Your task to perform on an android device: change timer sound Image 0: 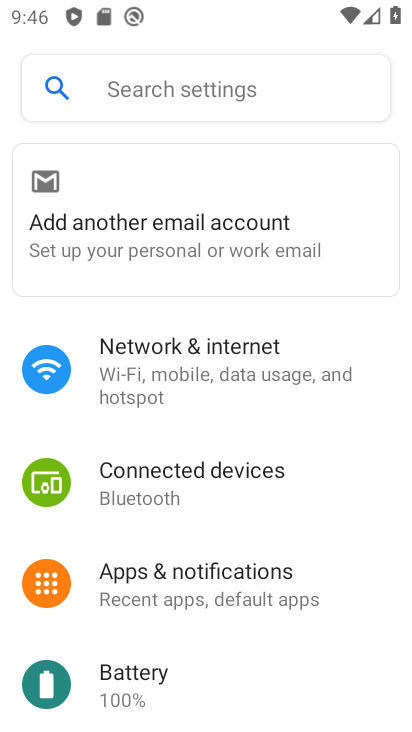
Step 0: press home button
Your task to perform on an android device: change timer sound Image 1: 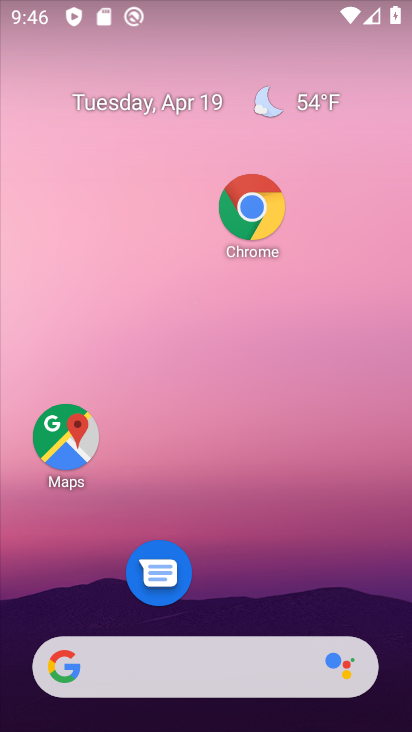
Step 1: drag from (223, 505) to (248, 228)
Your task to perform on an android device: change timer sound Image 2: 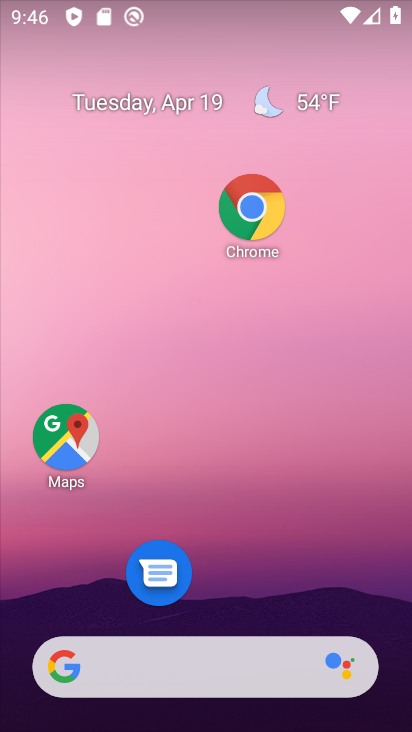
Step 2: drag from (221, 578) to (168, 99)
Your task to perform on an android device: change timer sound Image 3: 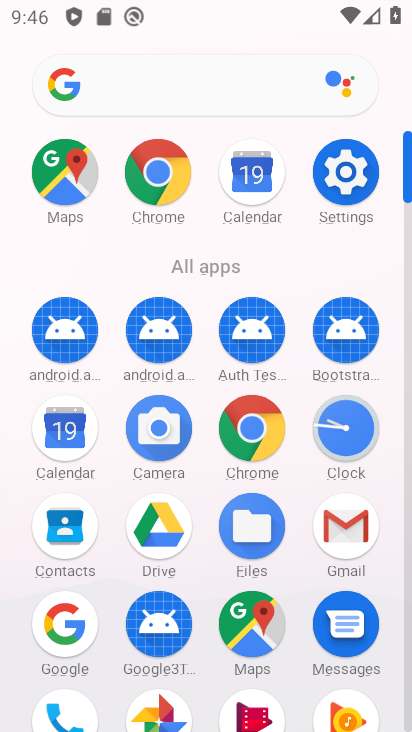
Step 3: click (334, 420)
Your task to perform on an android device: change timer sound Image 4: 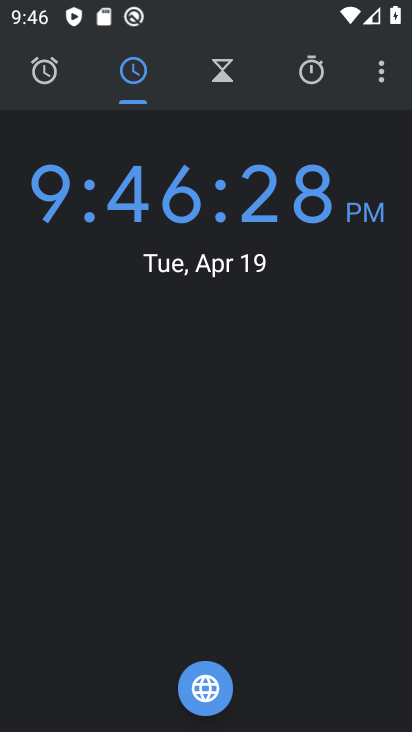
Step 4: click (379, 75)
Your task to perform on an android device: change timer sound Image 5: 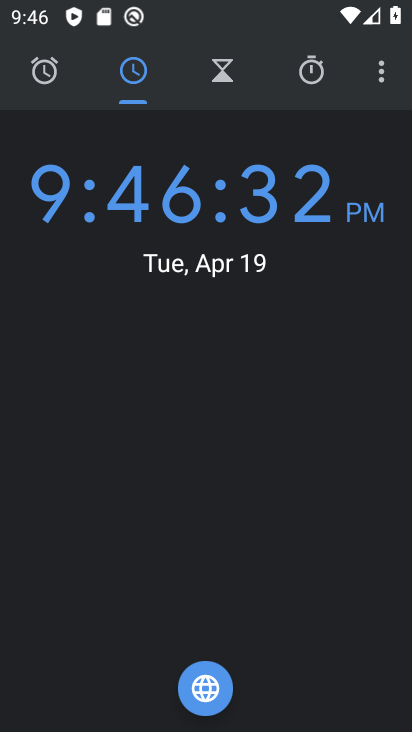
Step 5: click (384, 68)
Your task to perform on an android device: change timer sound Image 6: 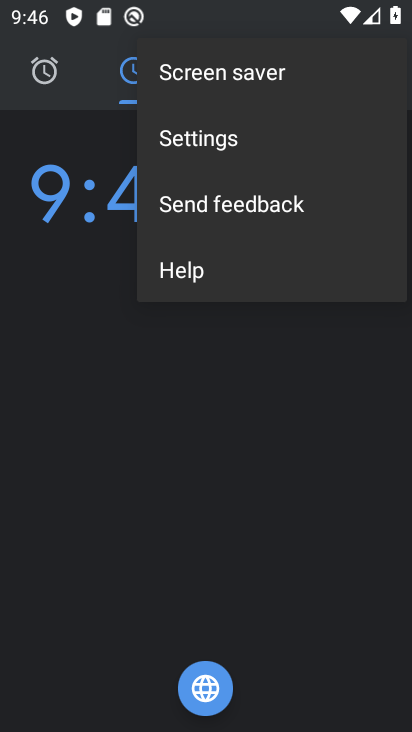
Step 6: click (236, 140)
Your task to perform on an android device: change timer sound Image 7: 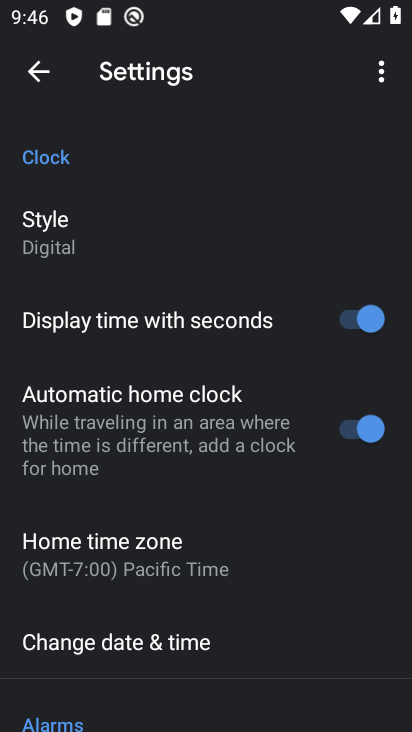
Step 7: drag from (185, 686) to (184, 237)
Your task to perform on an android device: change timer sound Image 8: 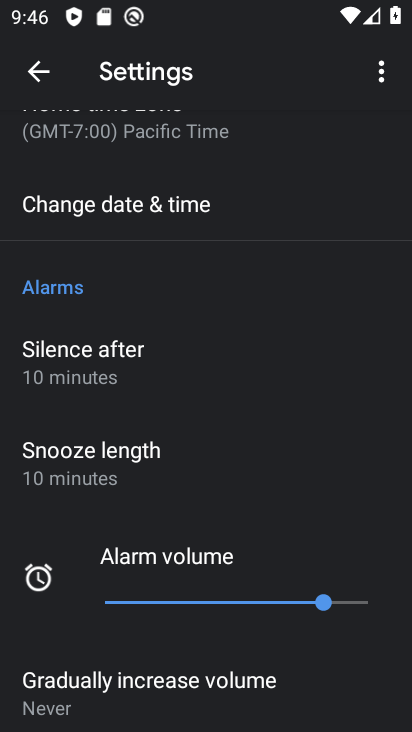
Step 8: drag from (204, 691) to (251, 355)
Your task to perform on an android device: change timer sound Image 9: 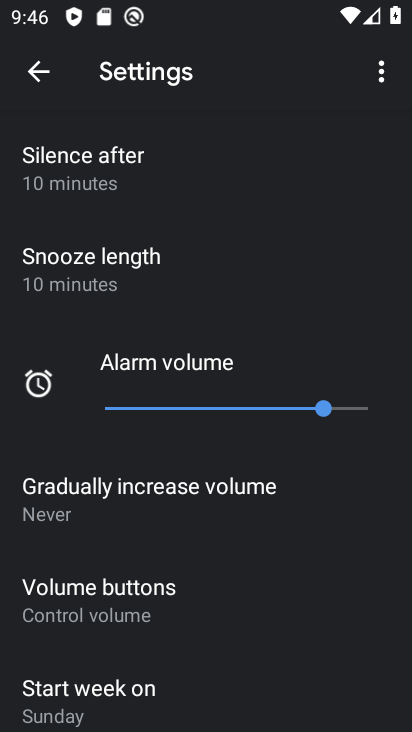
Step 9: drag from (189, 685) to (244, 295)
Your task to perform on an android device: change timer sound Image 10: 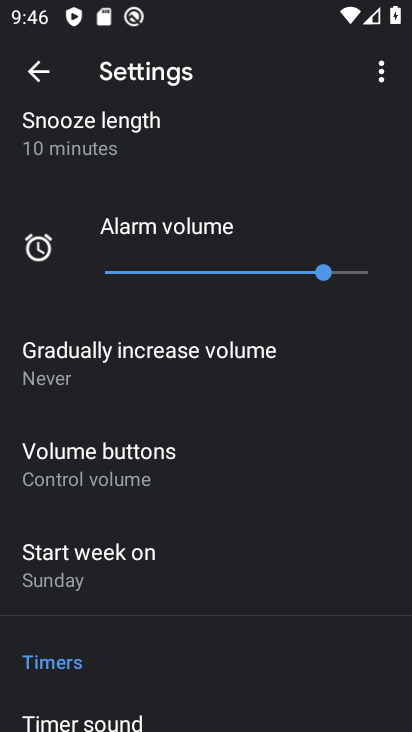
Step 10: drag from (249, 697) to (310, 322)
Your task to perform on an android device: change timer sound Image 11: 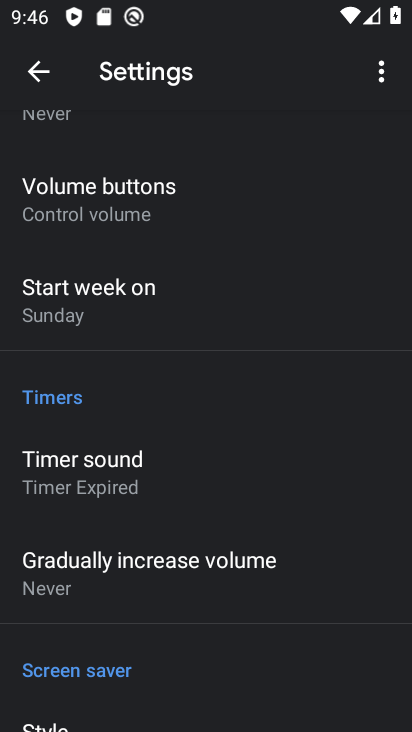
Step 11: click (70, 482)
Your task to perform on an android device: change timer sound Image 12: 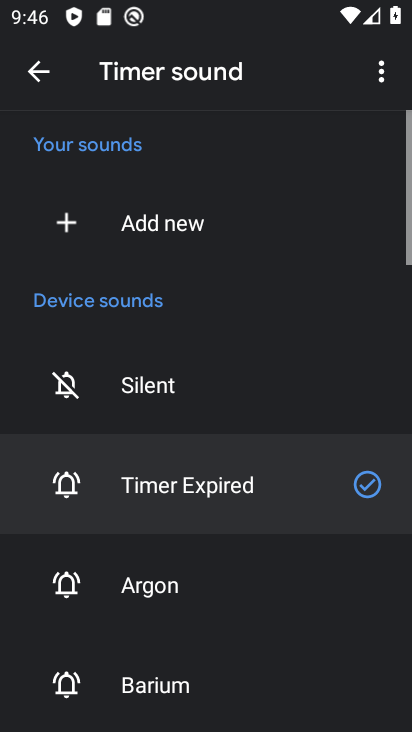
Step 12: click (131, 593)
Your task to perform on an android device: change timer sound Image 13: 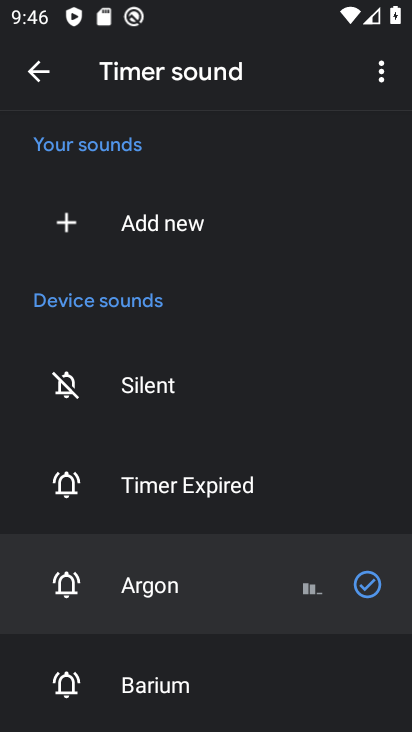
Step 13: task complete